Your task to perform on an android device: Open display settings Image 0: 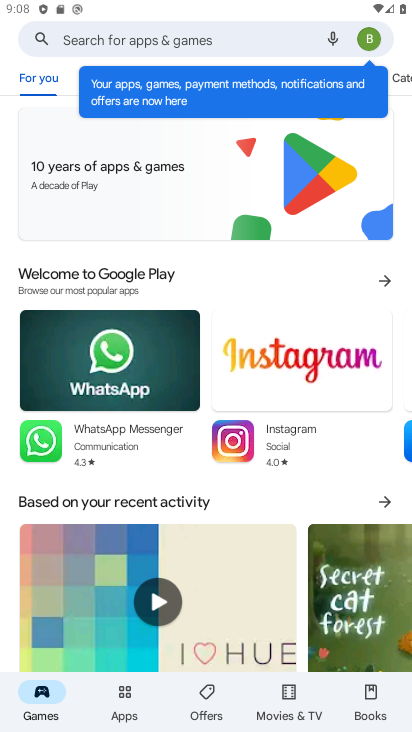
Step 0: press home button
Your task to perform on an android device: Open display settings Image 1: 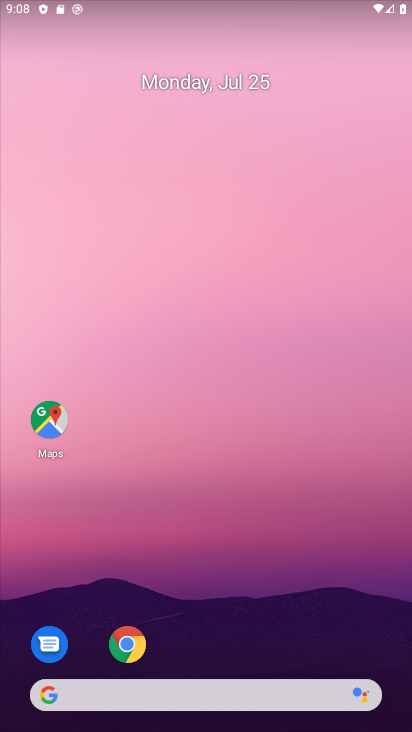
Step 1: drag from (385, 609) to (299, 127)
Your task to perform on an android device: Open display settings Image 2: 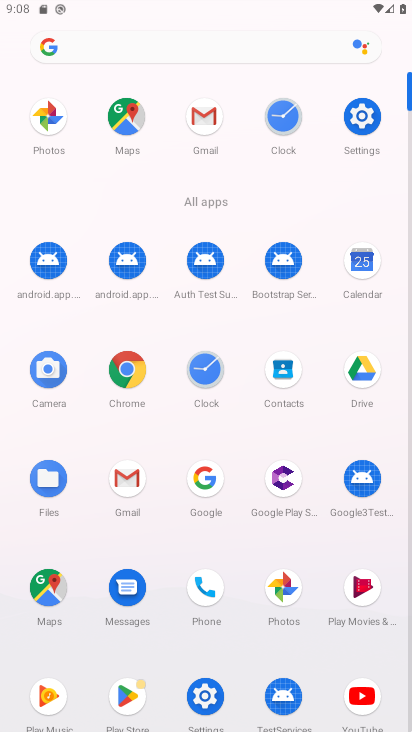
Step 2: click (195, 699)
Your task to perform on an android device: Open display settings Image 3: 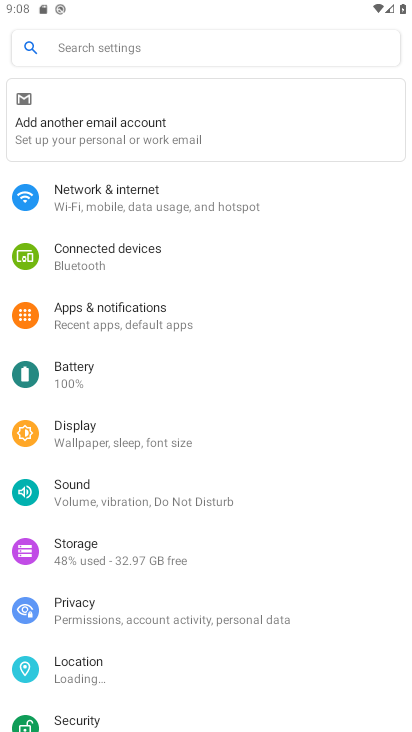
Step 3: click (84, 425)
Your task to perform on an android device: Open display settings Image 4: 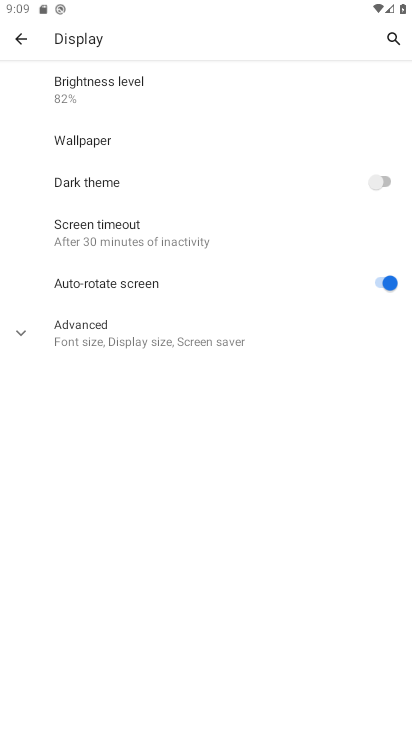
Step 4: click (38, 334)
Your task to perform on an android device: Open display settings Image 5: 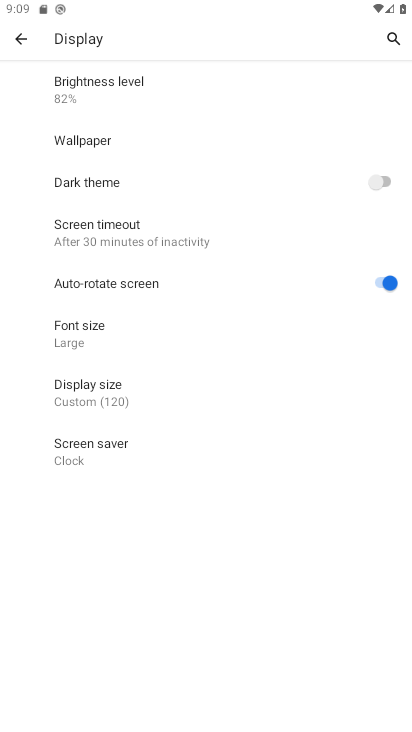
Step 5: click (89, 391)
Your task to perform on an android device: Open display settings Image 6: 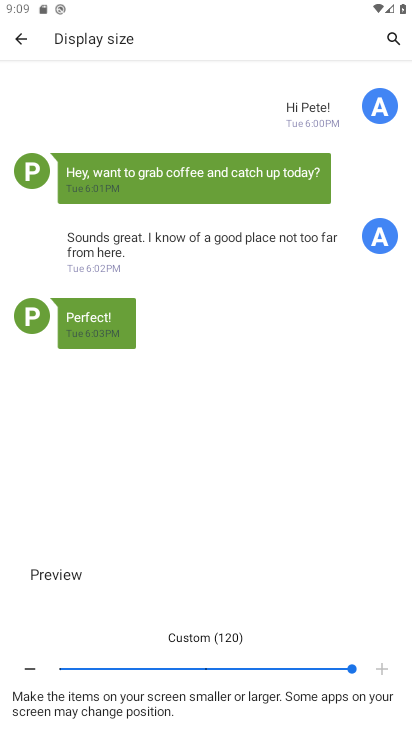
Step 6: click (20, 39)
Your task to perform on an android device: Open display settings Image 7: 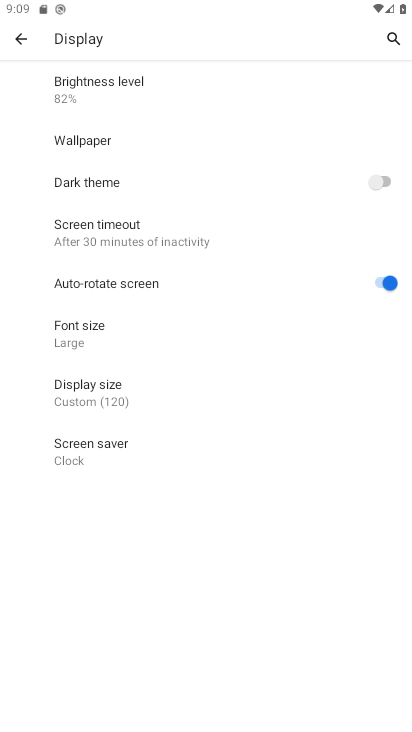
Step 7: task complete